Your task to perform on an android device: When is my next appointment? Image 0: 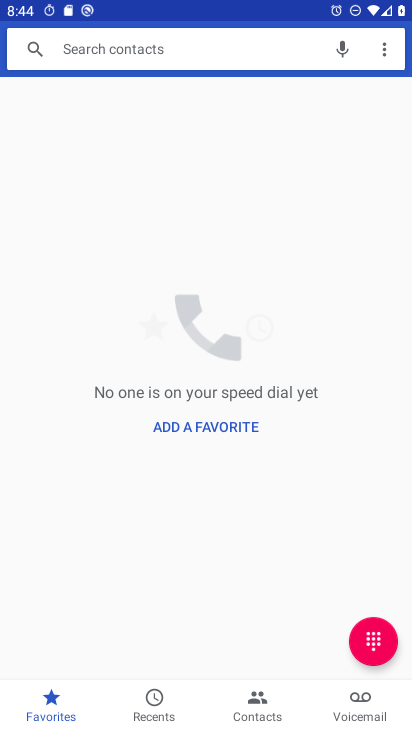
Step 0: press home button
Your task to perform on an android device: When is my next appointment? Image 1: 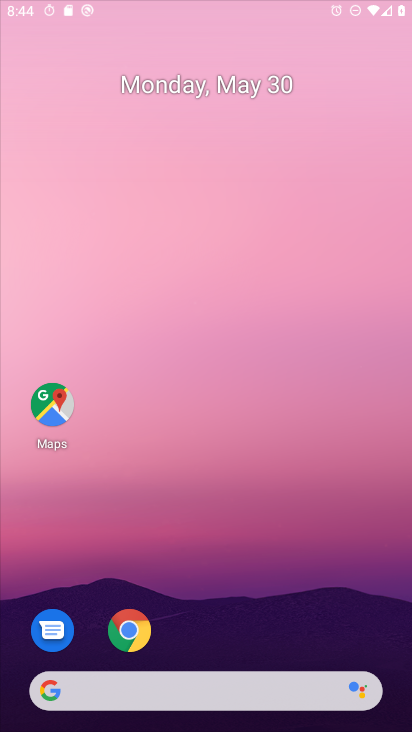
Step 1: drag from (318, 647) to (246, 56)
Your task to perform on an android device: When is my next appointment? Image 2: 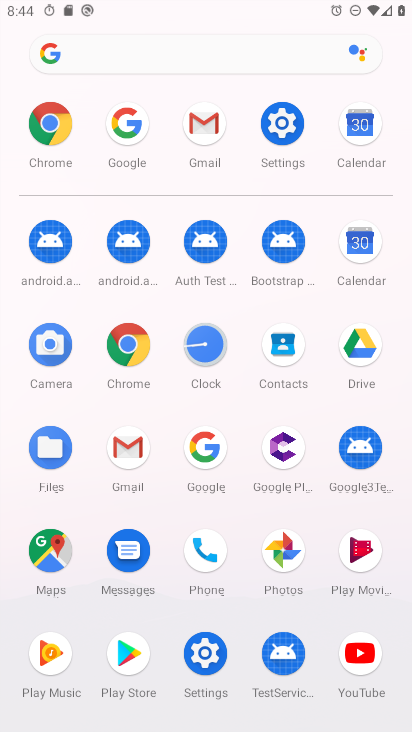
Step 2: click (373, 230)
Your task to perform on an android device: When is my next appointment? Image 3: 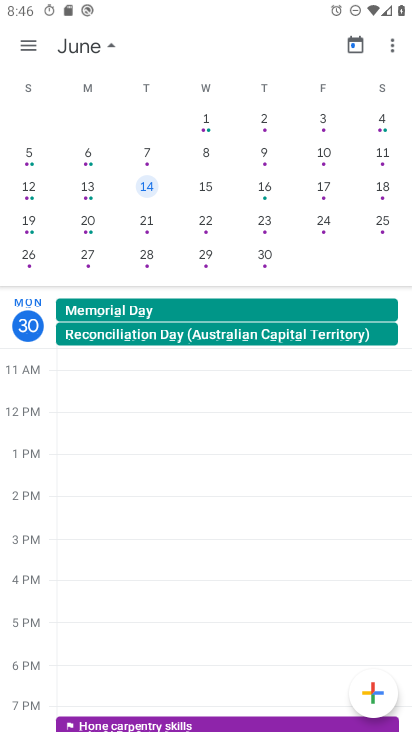
Step 3: task complete